Your task to perform on an android device: turn on sleep mode Image 0: 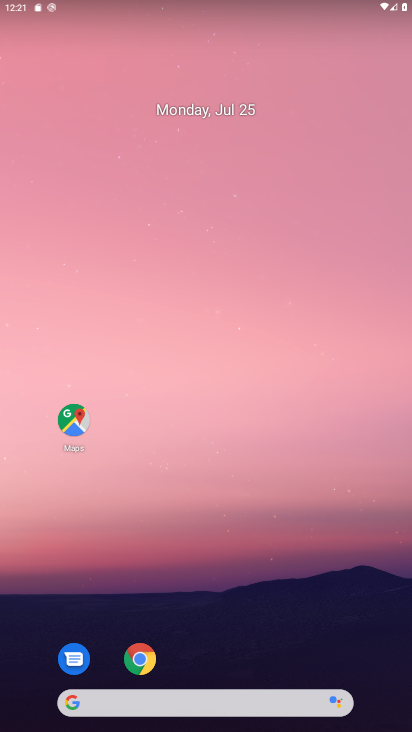
Step 0: drag from (211, 662) to (226, 0)
Your task to perform on an android device: turn on sleep mode Image 1: 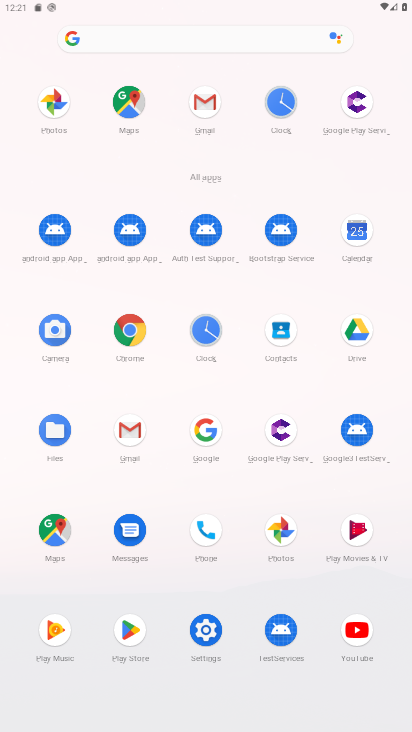
Step 1: click (205, 624)
Your task to perform on an android device: turn on sleep mode Image 2: 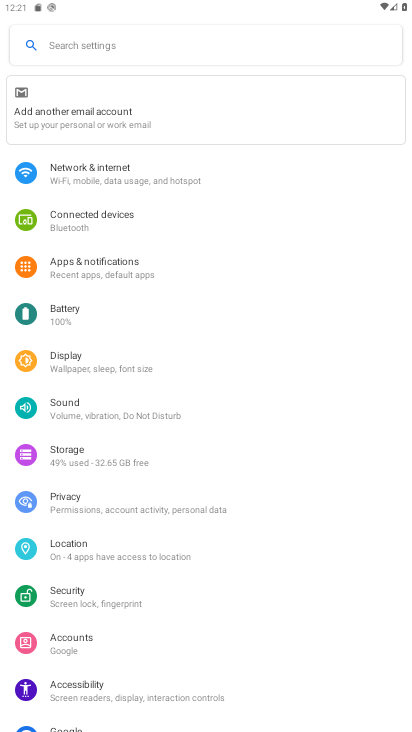
Step 2: click (90, 354)
Your task to perform on an android device: turn on sleep mode Image 3: 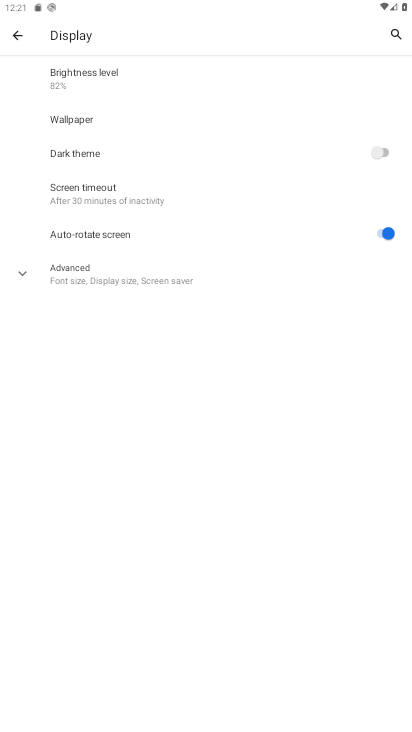
Step 3: click (26, 269)
Your task to perform on an android device: turn on sleep mode Image 4: 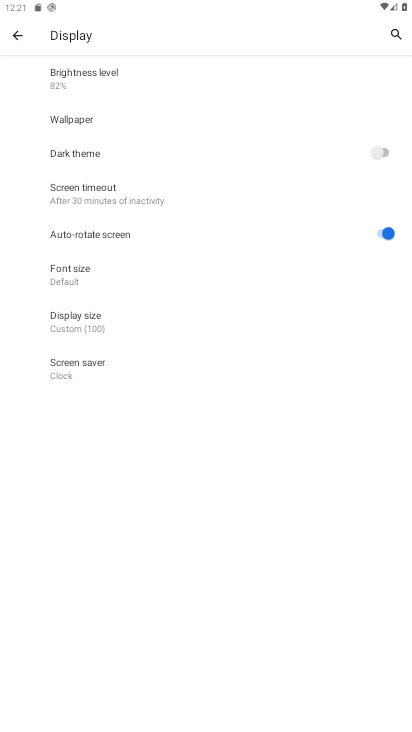
Step 4: task complete